Your task to perform on an android device: Is it going to rain today? Image 0: 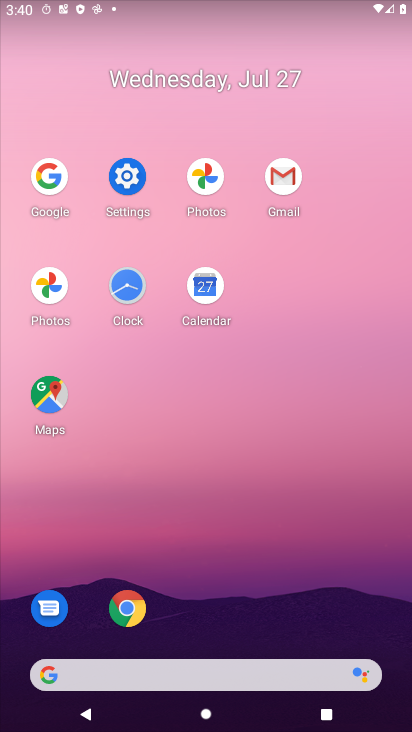
Step 0: click (42, 182)
Your task to perform on an android device: Is it going to rain today? Image 1: 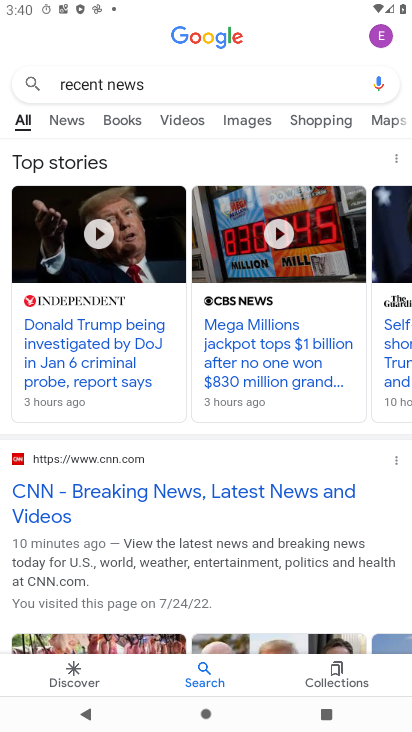
Step 1: drag from (209, 82) to (77, 82)
Your task to perform on an android device: Is it going to rain today? Image 2: 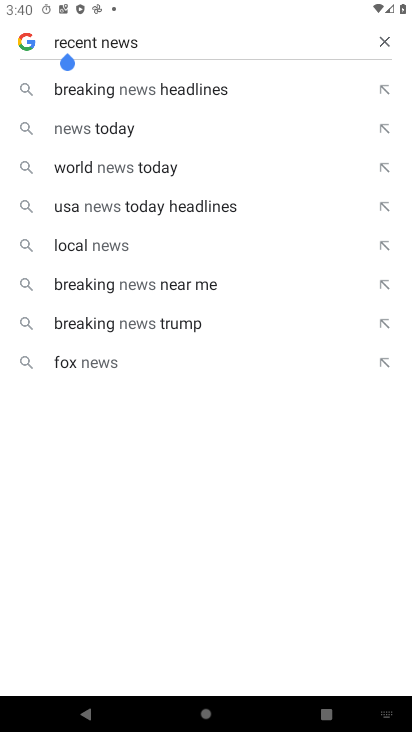
Step 2: click (380, 42)
Your task to perform on an android device: Is it going to rain today? Image 3: 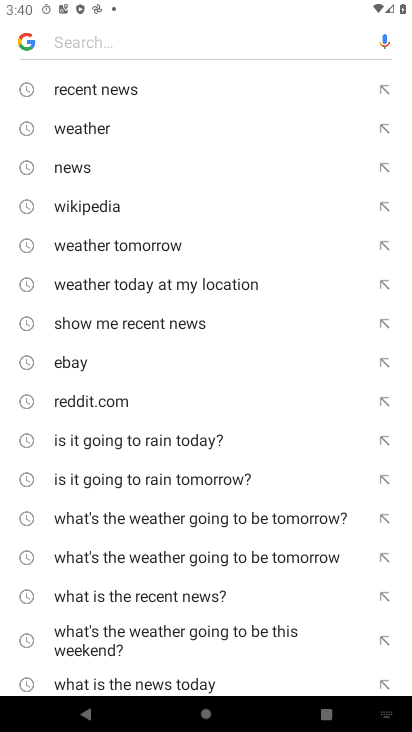
Step 3: click (117, 132)
Your task to perform on an android device: Is it going to rain today? Image 4: 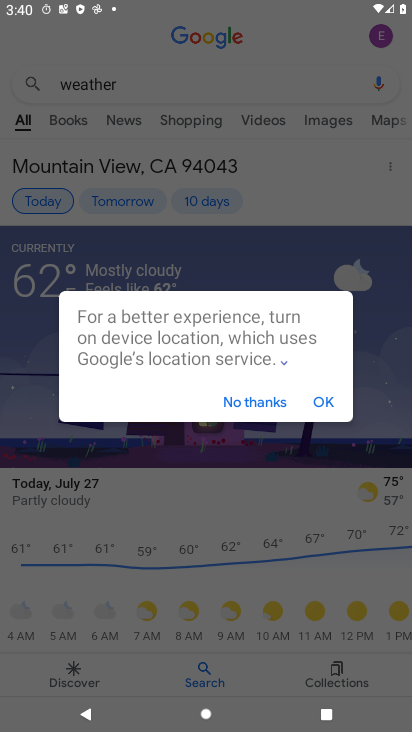
Step 4: click (312, 396)
Your task to perform on an android device: Is it going to rain today? Image 5: 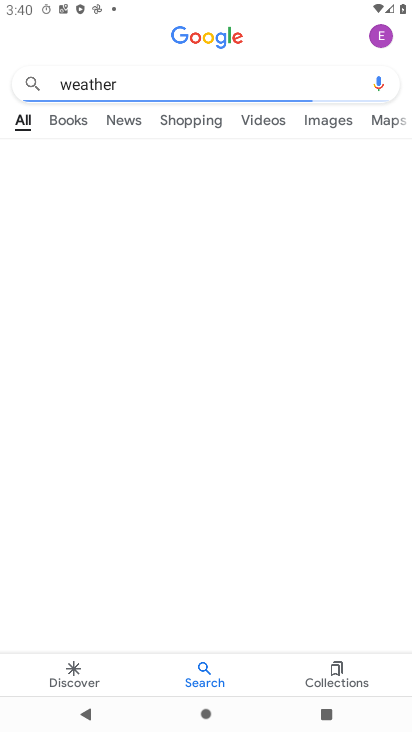
Step 5: task complete